Your task to perform on an android device: open a new tab in the chrome app Image 0: 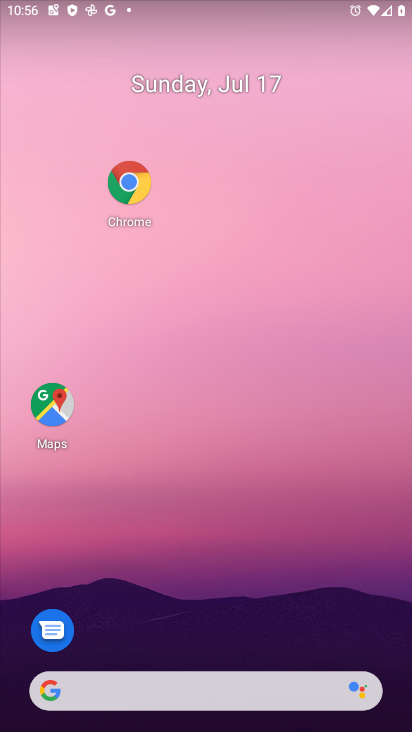
Step 0: click (124, 183)
Your task to perform on an android device: open a new tab in the chrome app Image 1: 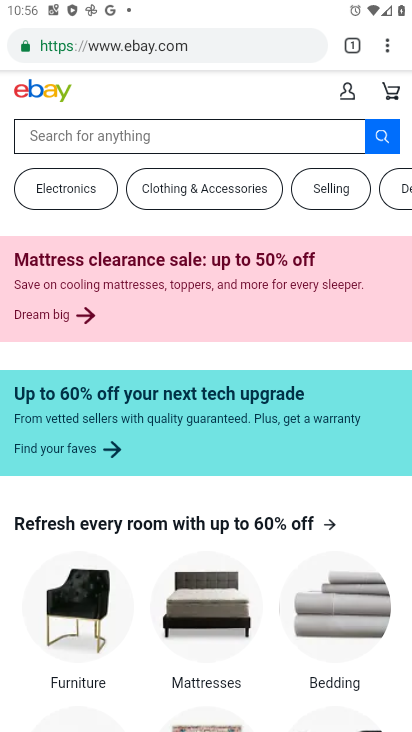
Step 1: click (354, 45)
Your task to perform on an android device: open a new tab in the chrome app Image 2: 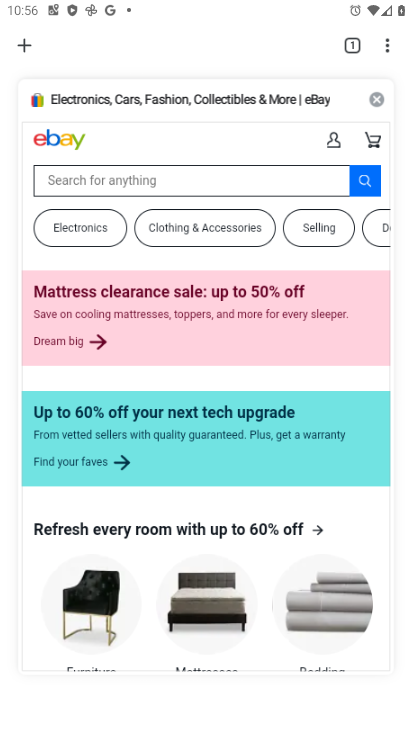
Step 2: click (18, 54)
Your task to perform on an android device: open a new tab in the chrome app Image 3: 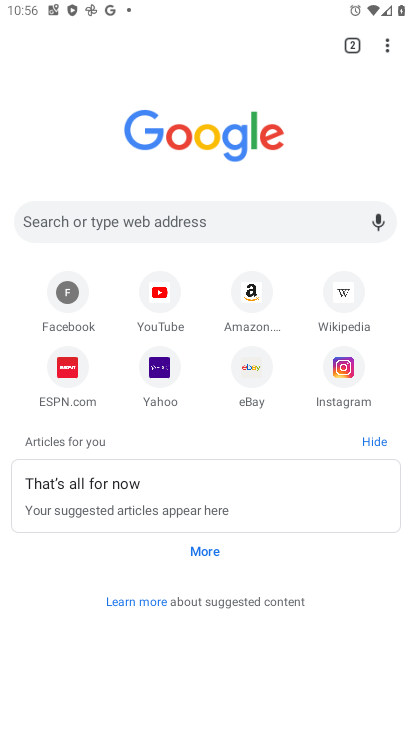
Step 3: task complete